Your task to perform on an android device: Open Google Maps Image 0: 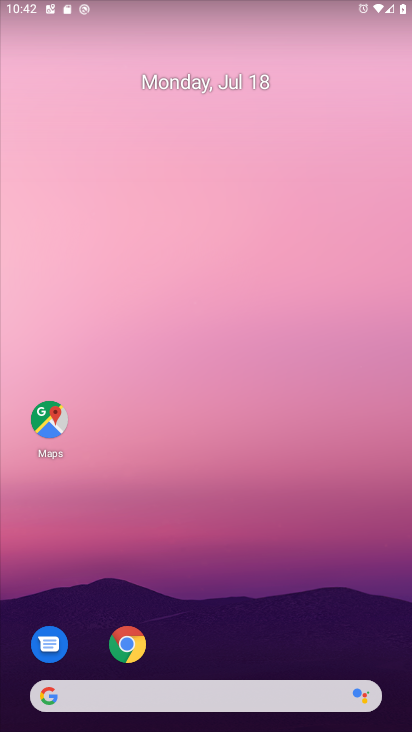
Step 0: click (47, 432)
Your task to perform on an android device: Open Google Maps Image 1: 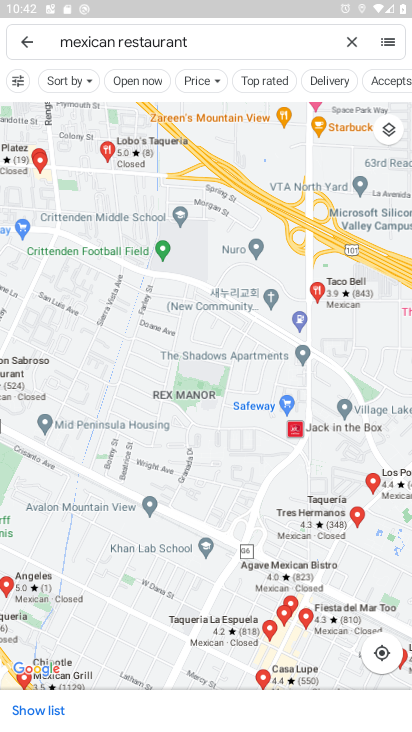
Step 1: click (338, 46)
Your task to perform on an android device: Open Google Maps Image 2: 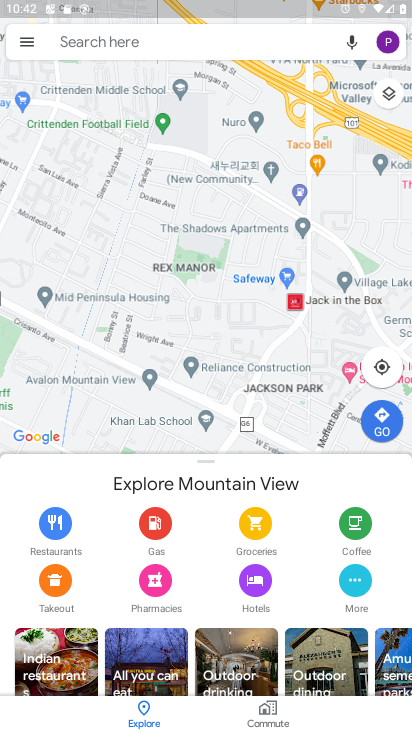
Step 2: task complete